Your task to perform on an android device: Open privacy settings Image 0: 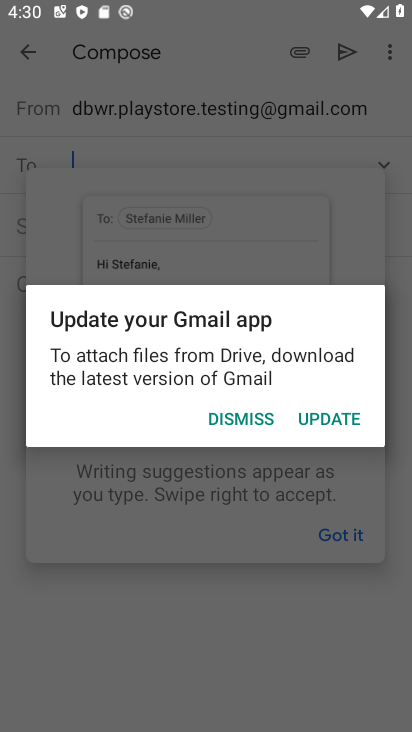
Step 0: press home button
Your task to perform on an android device: Open privacy settings Image 1: 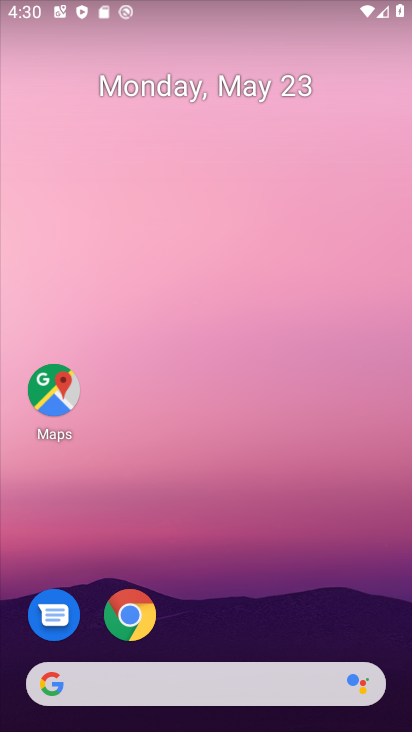
Step 1: click (139, 613)
Your task to perform on an android device: Open privacy settings Image 2: 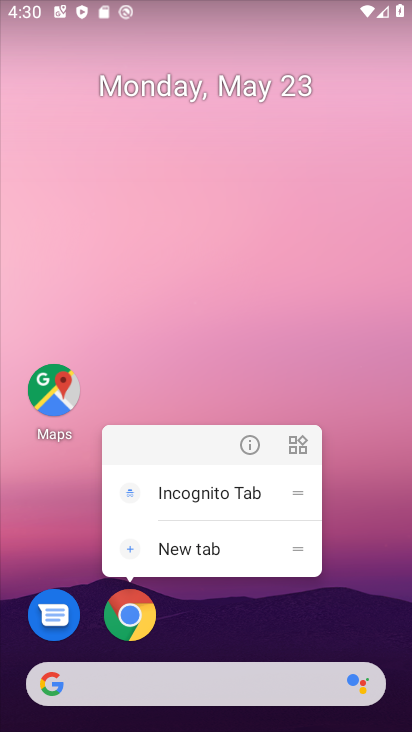
Step 2: click (217, 618)
Your task to perform on an android device: Open privacy settings Image 3: 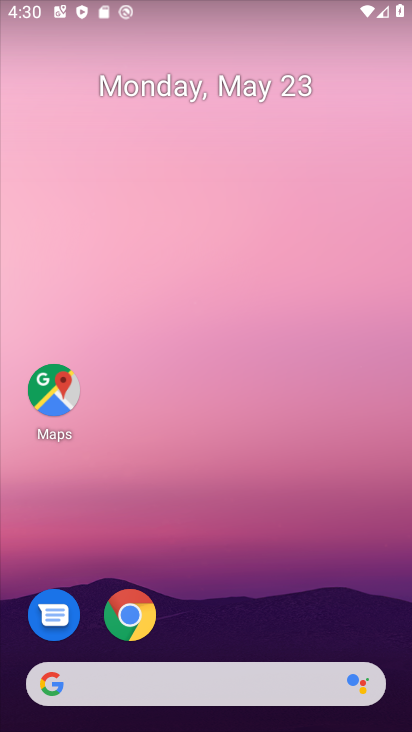
Step 3: drag from (287, 634) to (316, 116)
Your task to perform on an android device: Open privacy settings Image 4: 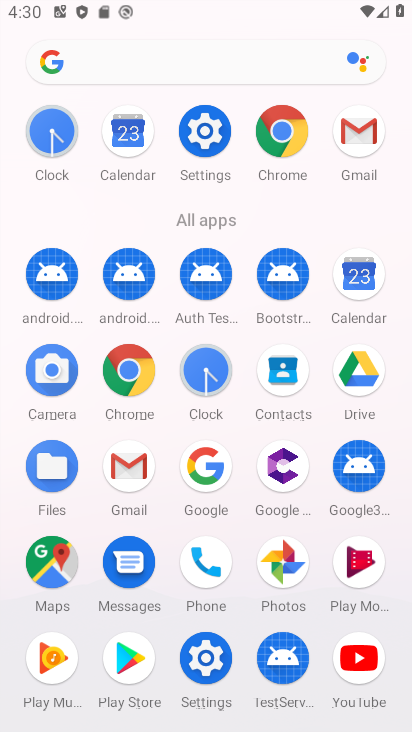
Step 4: click (204, 666)
Your task to perform on an android device: Open privacy settings Image 5: 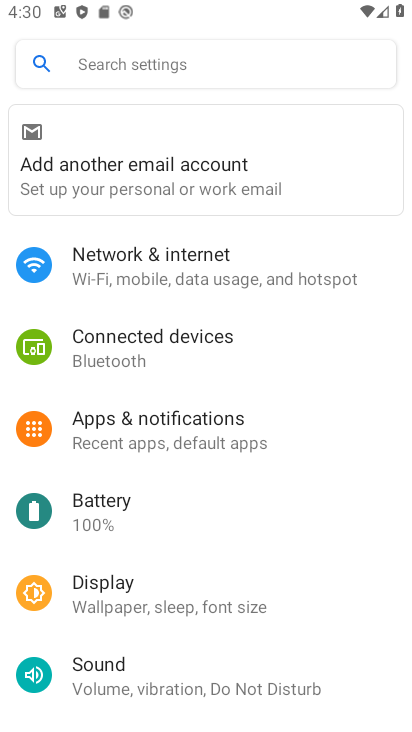
Step 5: drag from (245, 556) to (243, 245)
Your task to perform on an android device: Open privacy settings Image 6: 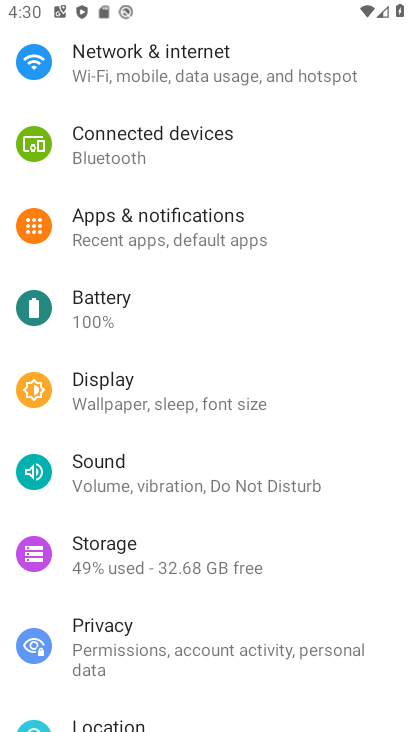
Step 6: click (92, 636)
Your task to perform on an android device: Open privacy settings Image 7: 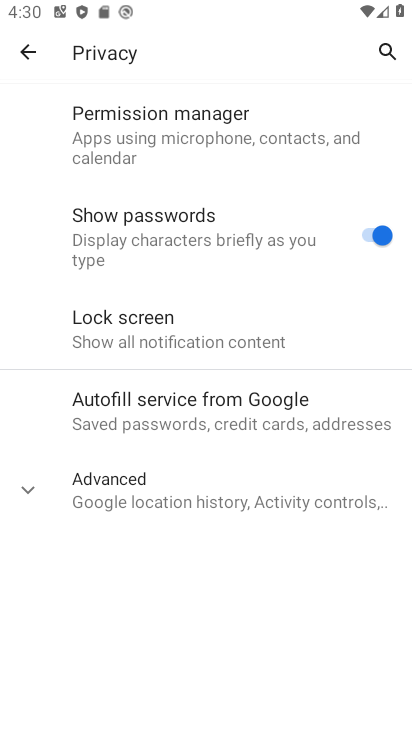
Step 7: task complete